Your task to perform on an android device: Go to Android settings Image 0: 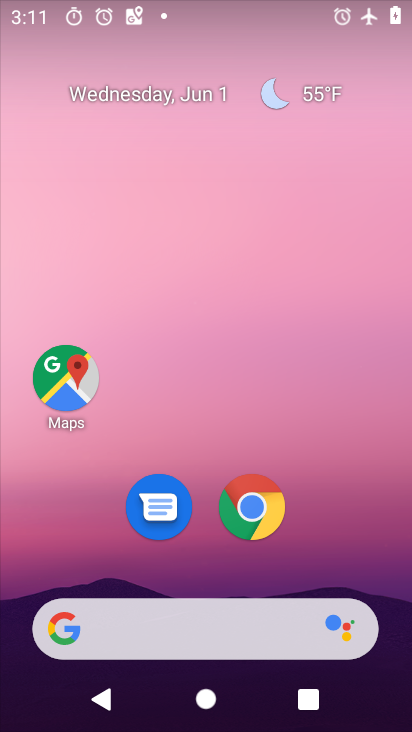
Step 0: drag from (365, 607) to (341, 10)
Your task to perform on an android device: Go to Android settings Image 1: 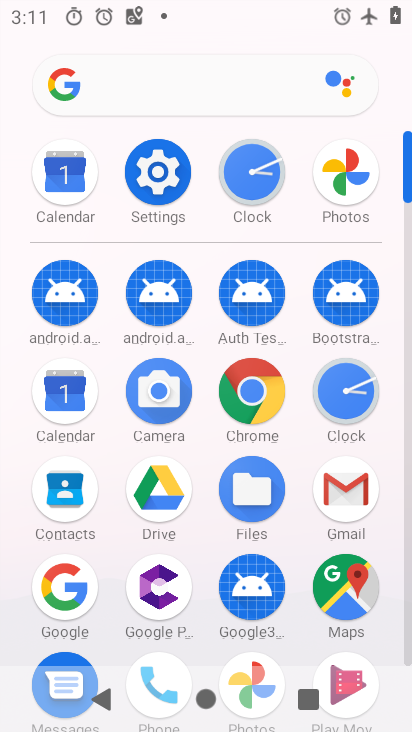
Step 1: click (155, 182)
Your task to perform on an android device: Go to Android settings Image 2: 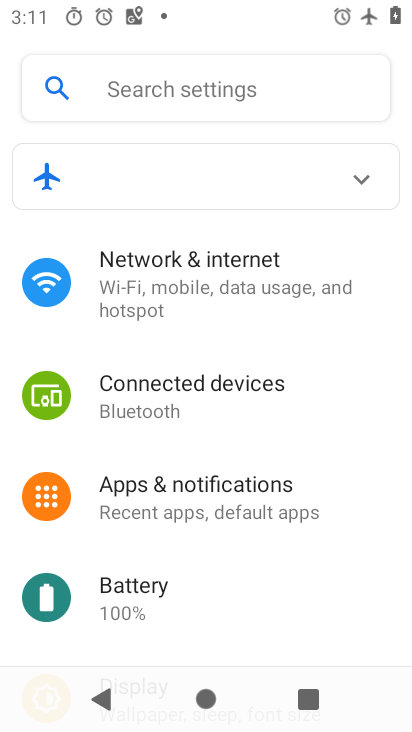
Step 2: task complete